Your task to perform on an android device: Open Chrome and go to the settings page Image 0: 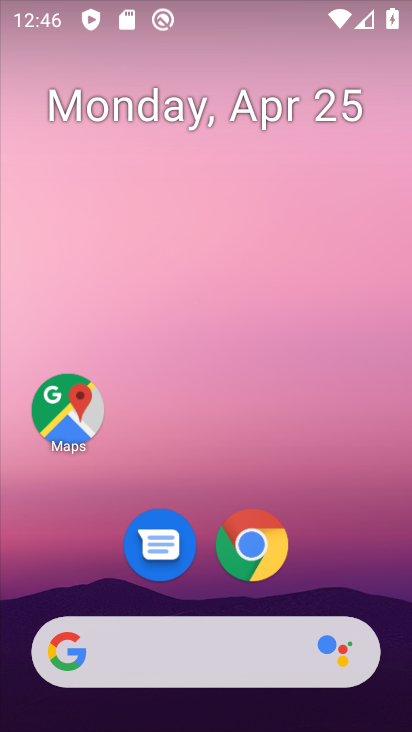
Step 0: click (256, 541)
Your task to perform on an android device: Open Chrome and go to the settings page Image 1: 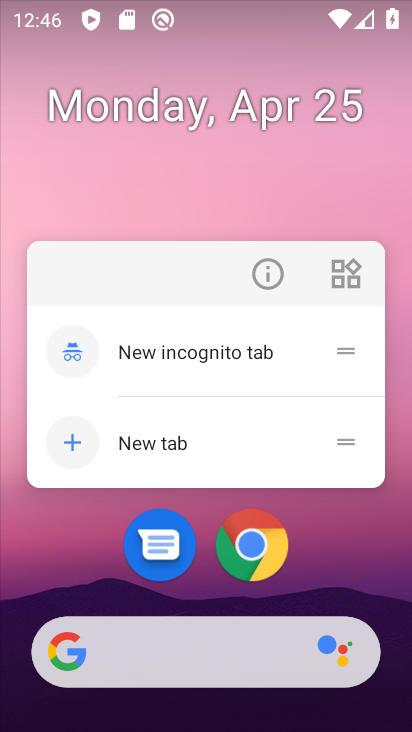
Step 1: click (264, 557)
Your task to perform on an android device: Open Chrome and go to the settings page Image 2: 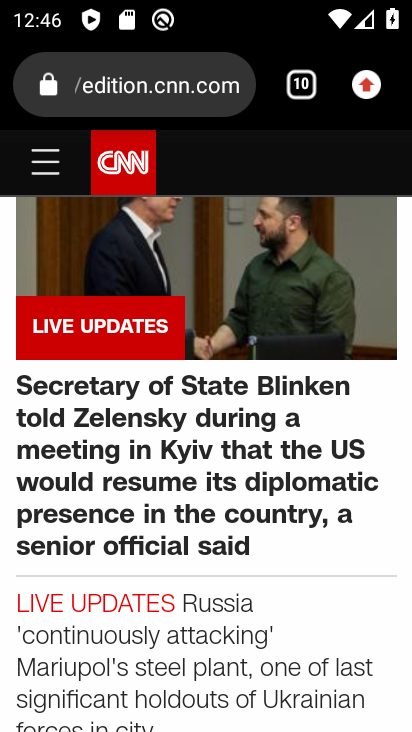
Step 2: task complete